Your task to perform on an android device: set default search engine in the chrome app Image 0: 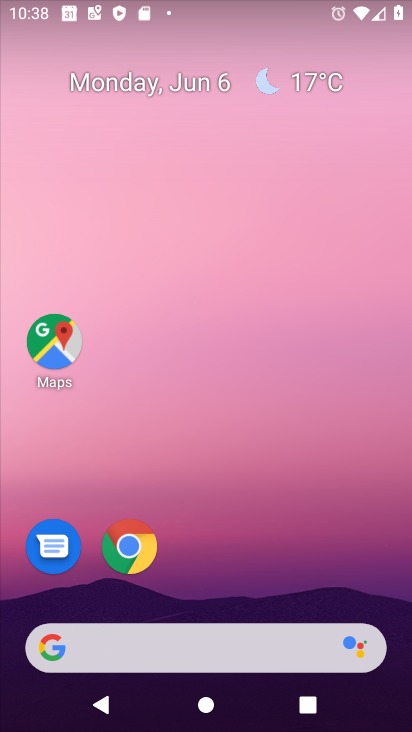
Step 0: drag from (207, 592) to (217, 30)
Your task to perform on an android device: set default search engine in the chrome app Image 1: 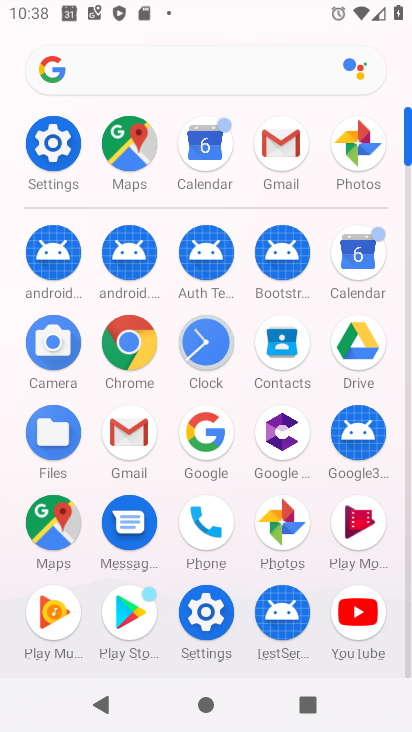
Step 1: click (141, 345)
Your task to perform on an android device: set default search engine in the chrome app Image 2: 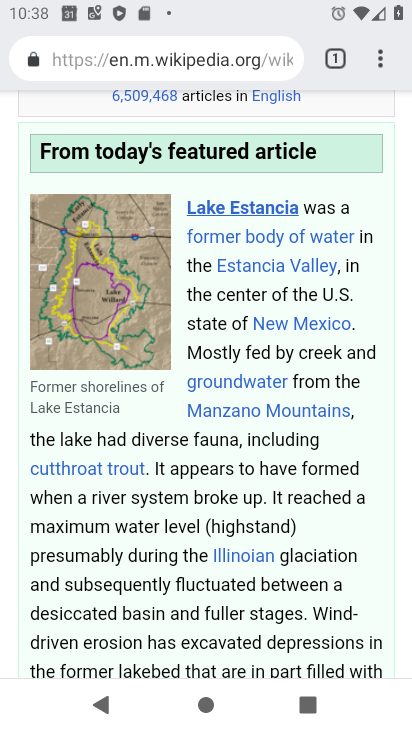
Step 2: click (380, 55)
Your task to perform on an android device: set default search engine in the chrome app Image 3: 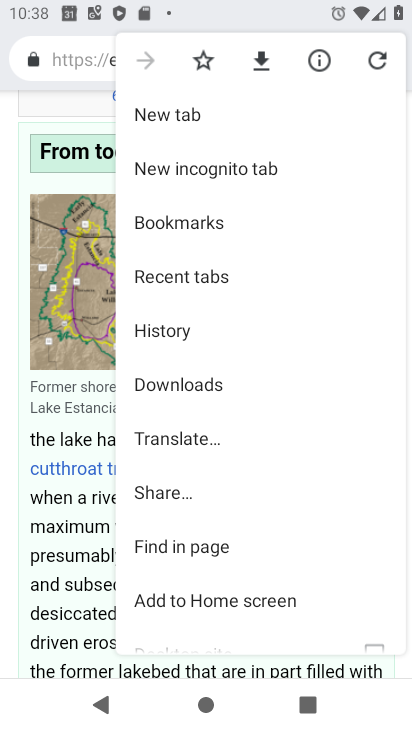
Step 3: drag from (210, 455) to (317, 49)
Your task to perform on an android device: set default search engine in the chrome app Image 4: 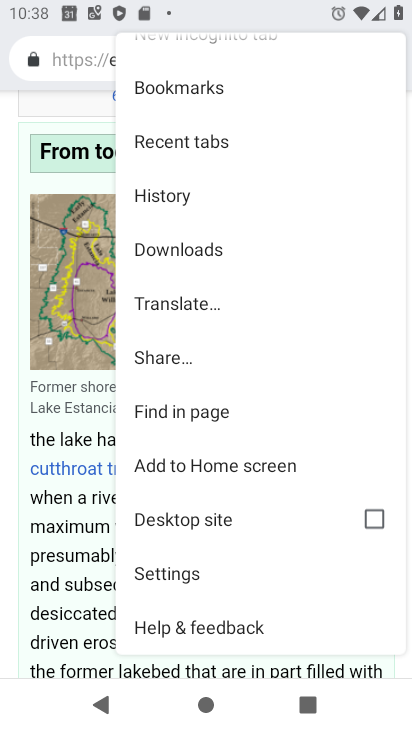
Step 4: click (180, 568)
Your task to perform on an android device: set default search engine in the chrome app Image 5: 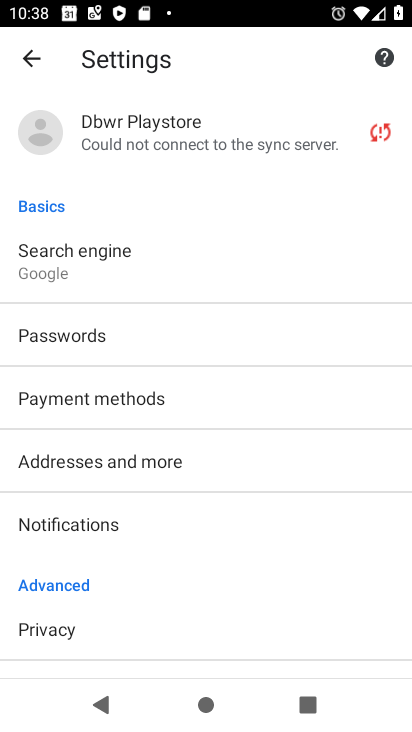
Step 5: click (121, 261)
Your task to perform on an android device: set default search engine in the chrome app Image 6: 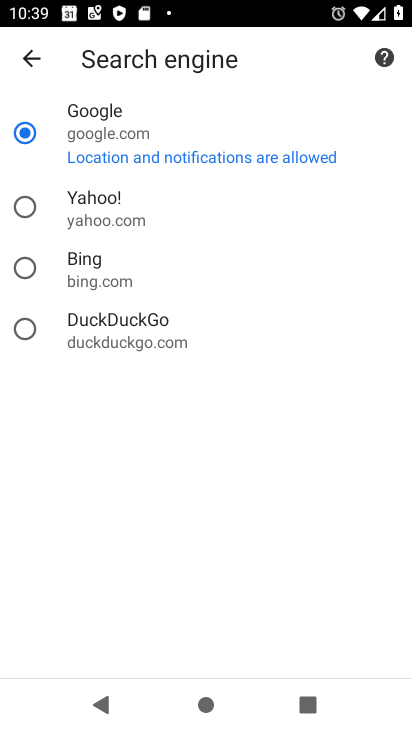
Step 6: click (149, 158)
Your task to perform on an android device: set default search engine in the chrome app Image 7: 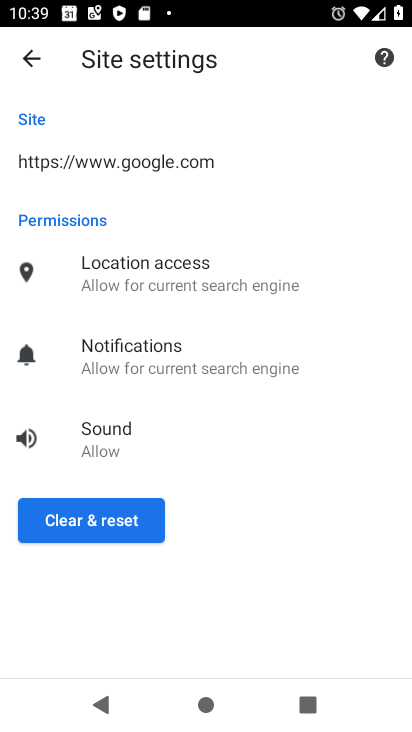
Step 7: click (106, 511)
Your task to perform on an android device: set default search engine in the chrome app Image 8: 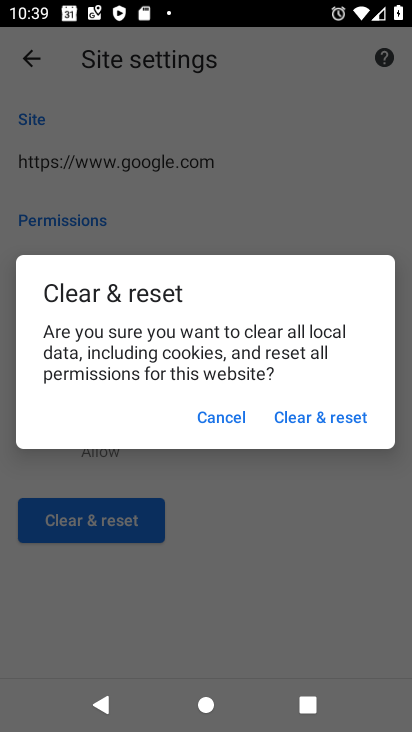
Step 8: click (344, 416)
Your task to perform on an android device: set default search engine in the chrome app Image 9: 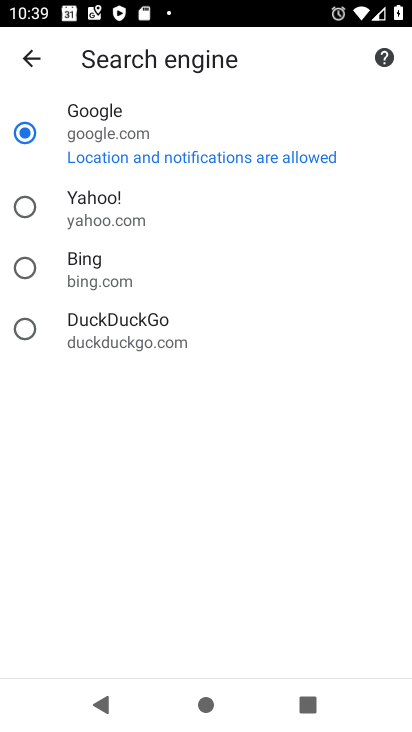
Step 9: task complete